Your task to perform on an android device: clear history in the chrome app Image 0: 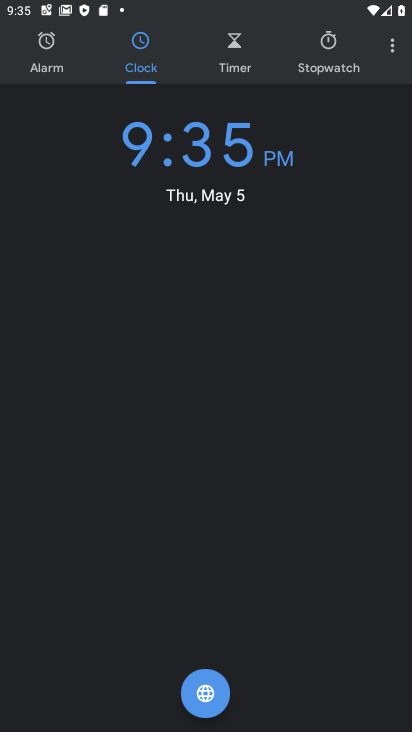
Step 0: press home button
Your task to perform on an android device: clear history in the chrome app Image 1: 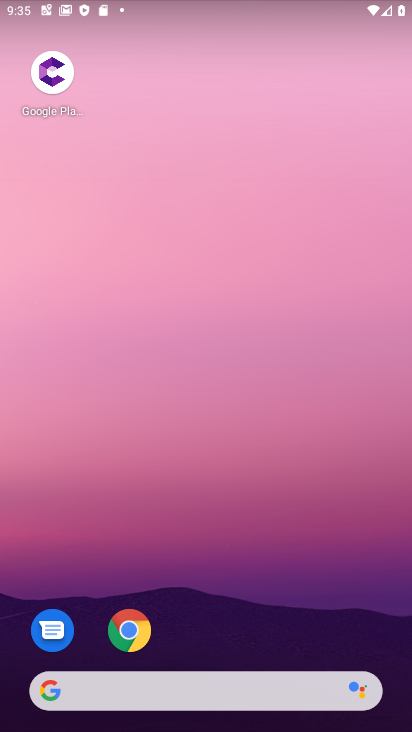
Step 1: drag from (325, 590) to (298, 197)
Your task to perform on an android device: clear history in the chrome app Image 2: 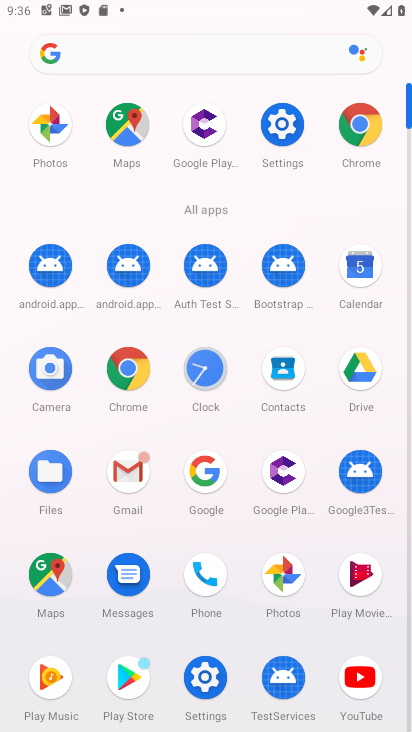
Step 2: drag from (296, 457) to (296, 124)
Your task to perform on an android device: clear history in the chrome app Image 3: 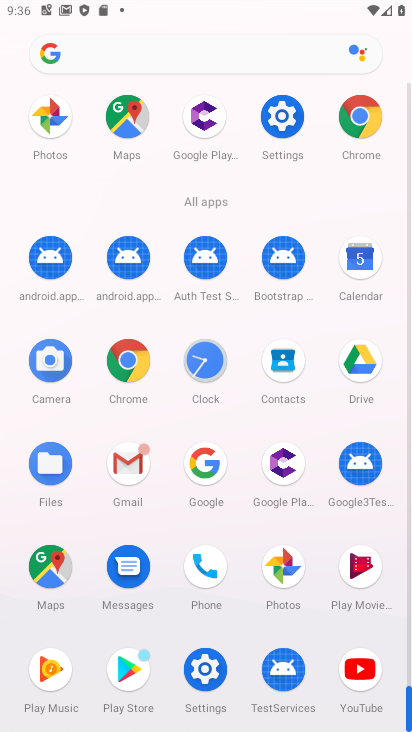
Step 3: click (116, 330)
Your task to perform on an android device: clear history in the chrome app Image 4: 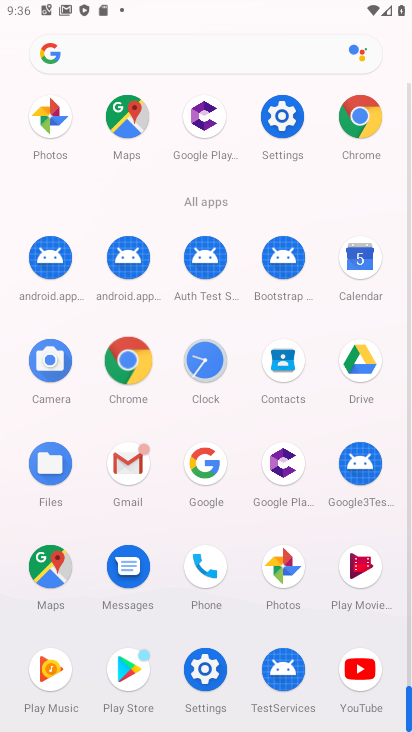
Step 4: click (119, 355)
Your task to perform on an android device: clear history in the chrome app Image 5: 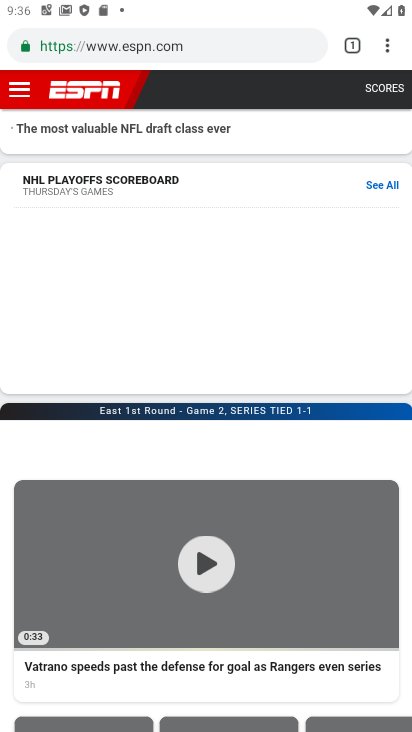
Step 5: click (388, 47)
Your task to perform on an android device: clear history in the chrome app Image 6: 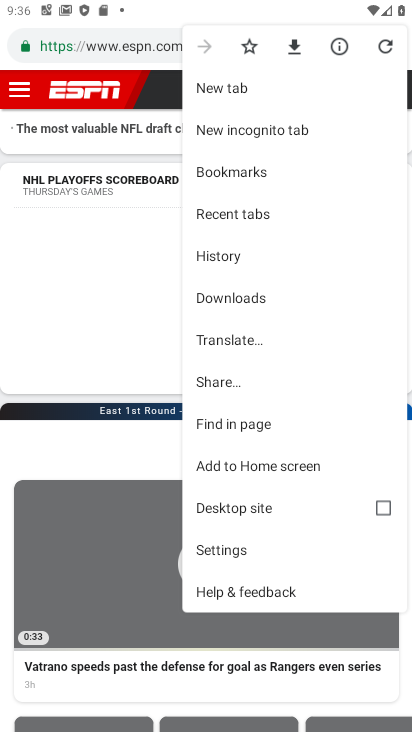
Step 6: click (257, 257)
Your task to perform on an android device: clear history in the chrome app Image 7: 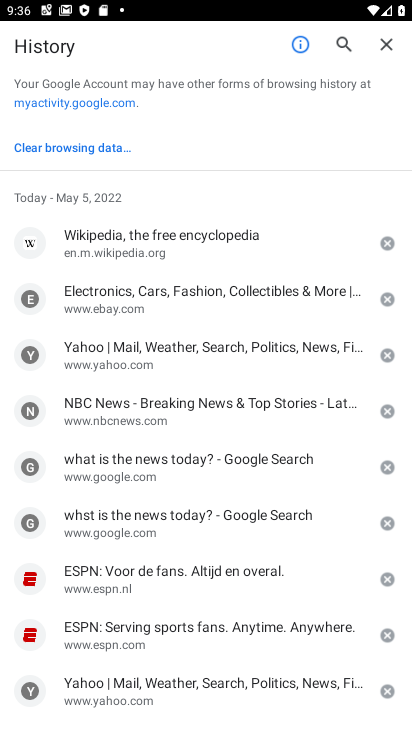
Step 7: click (34, 150)
Your task to perform on an android device: clear history in the chrome app Image 8: 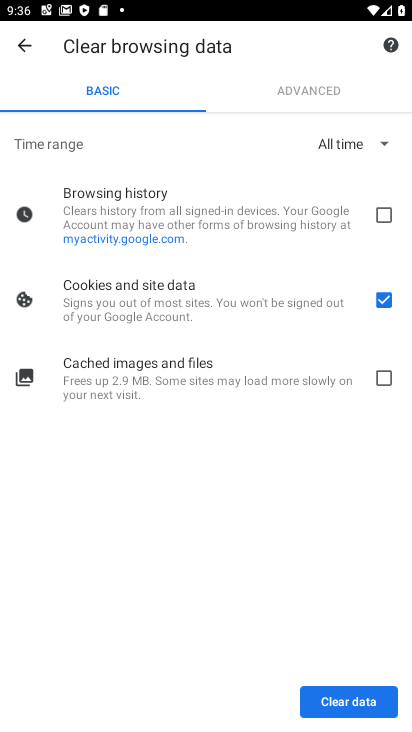
Step 8: click (381, 206)
Your task to perform on an android device: clear history in the chrome app Image 9: 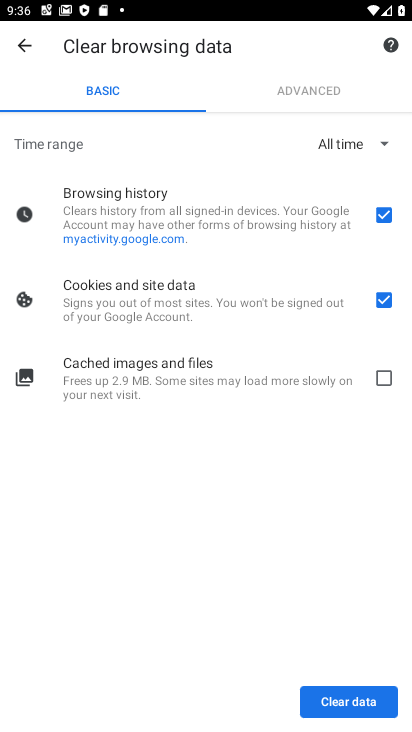
Step 9: click (384, 300)
Your task to perform on an android device: clear history in the chrome app Image 10: 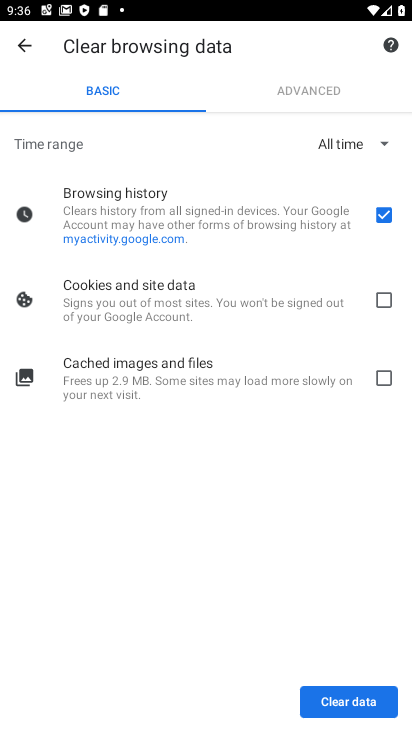
Step 10: click (378, 715)
Your task to perform on an android device: clear history in the chrome app Image 11: 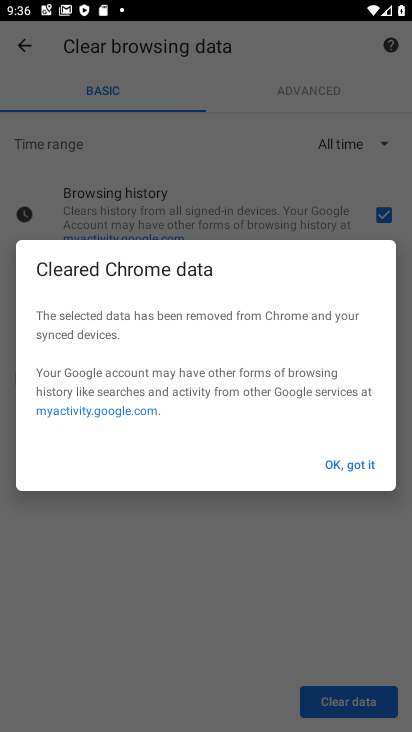
Step 11: click (332, 459)
Your task to perform on an android device: clear history in the chrome app Image 12: 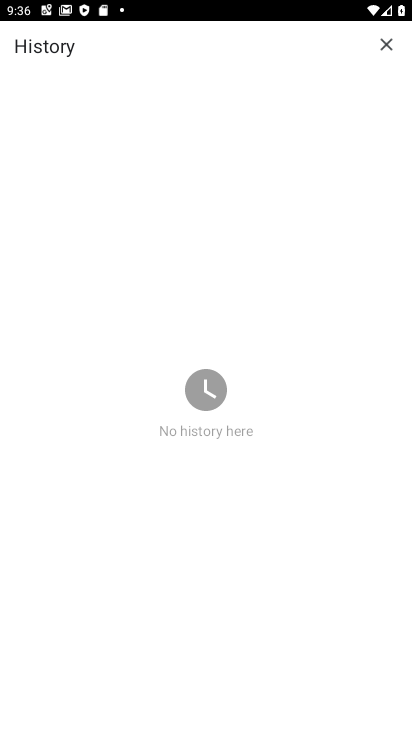
Step 12: task complete